Your task to perform on an android device: turn off javascript in the chrome app Image 0: 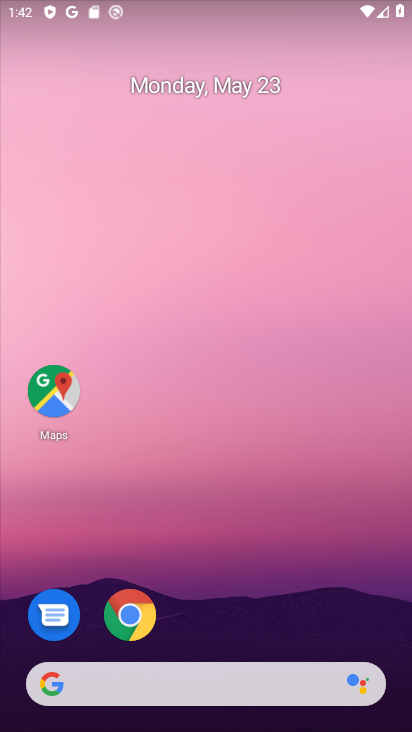
Step 0: click (127, 634)
Your task to perform on an android device: turn off javascript in the chrome app Image 1: 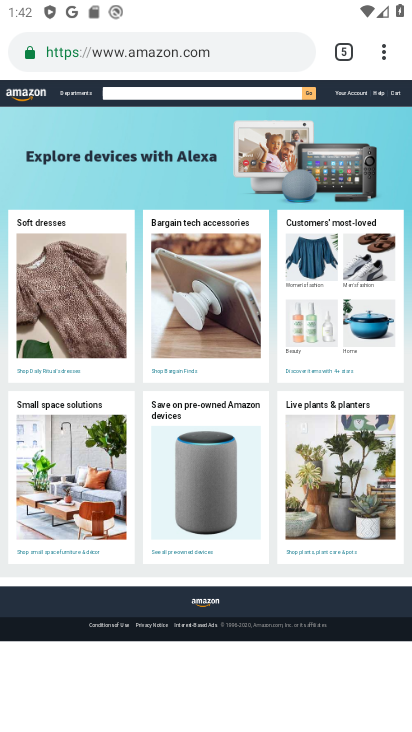
Step 1: click (381, 52)
Your task to perform on an android device: turn off javascript in the chrome app Image 2: 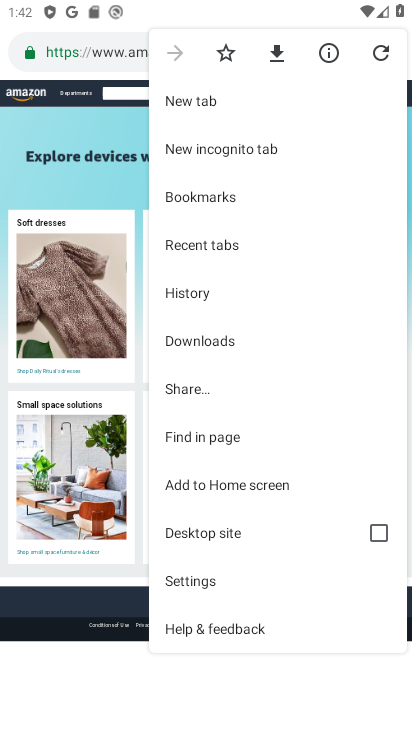
Step 2: click (198, 582)
Your task to perform on an android device: turn off javascript in the chrome app Image 3: 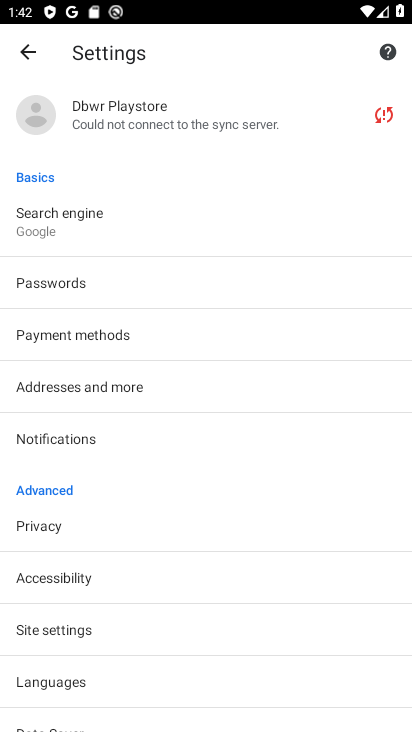
Step 3: click (70, 619)
Your task to perform on an android device: turn off javascript in the chrome app Image 4: 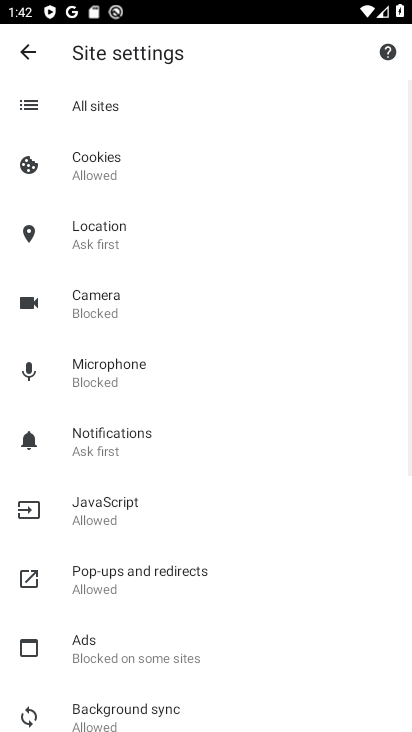
Step 4: drag from (70, 619) to (82, 508)
Your task to perform on an android device: turn off javascript in the chrome app Image 5: 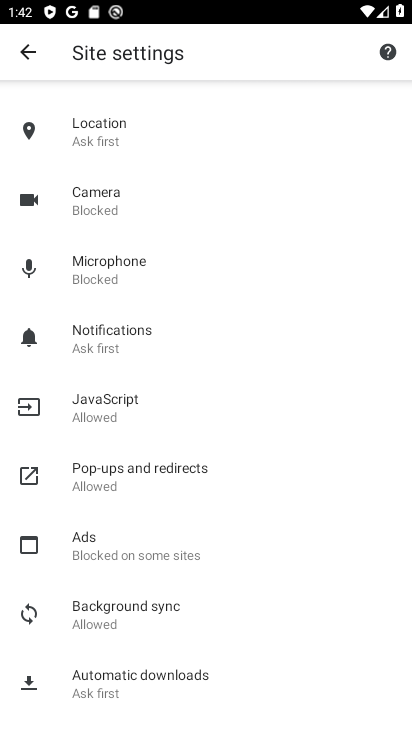
Step 5: click (73, 386)
Your task to perform on an android device: turn off javascript in the chrome app Image 6: 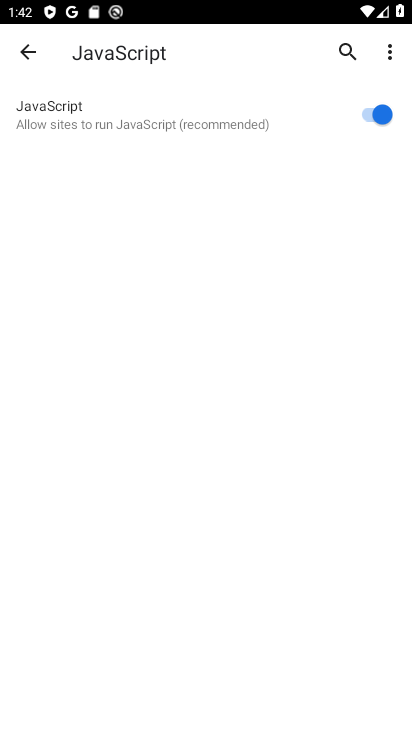
Step 6: click (383, 106)
Your task to perform on an android device: turn off javascript in the chrome app Image 7: 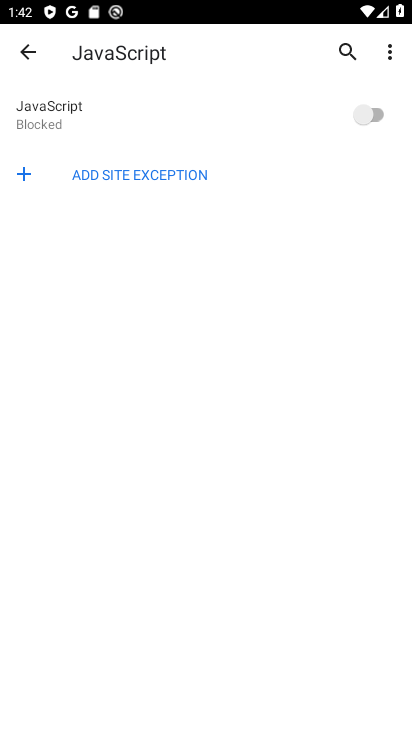
Step 7: task complete